Your task to perform on an android device: toggle notification dots Image 0: 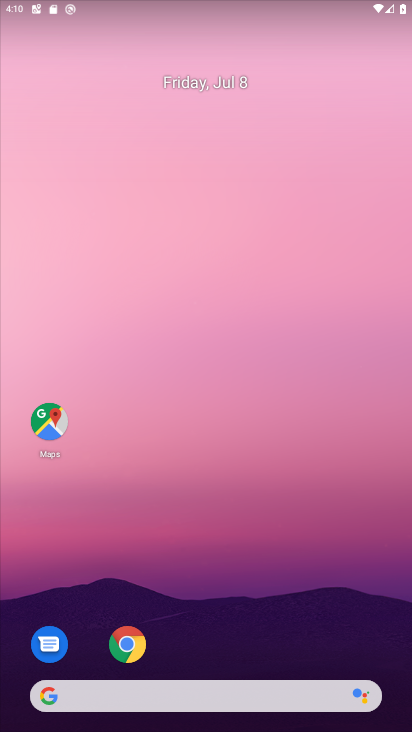
Step 0: drag from (376, 639) to (328, 33)
Your task to perform on an android device: toggle notification dots Image 1: 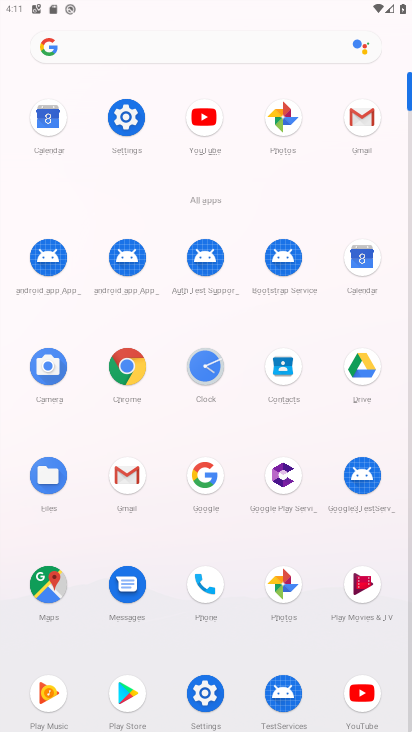
Step 1: click (204, 696)
Your task to perform on an android device: toggle notification dots Image 2: 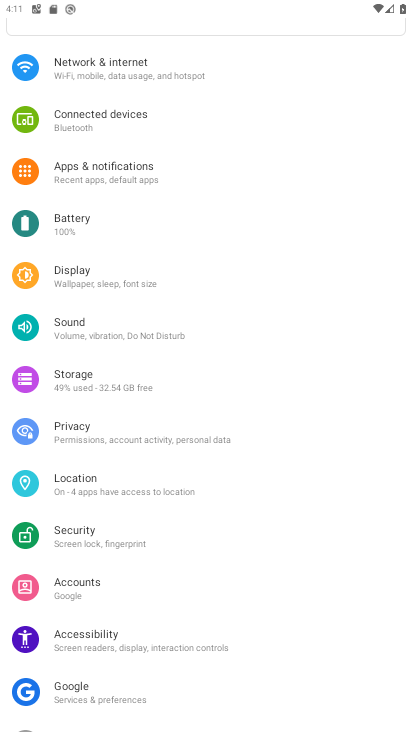
Step 2: click (90, 170)
Your task to perform on an android device: toggle notification dots Image 3: 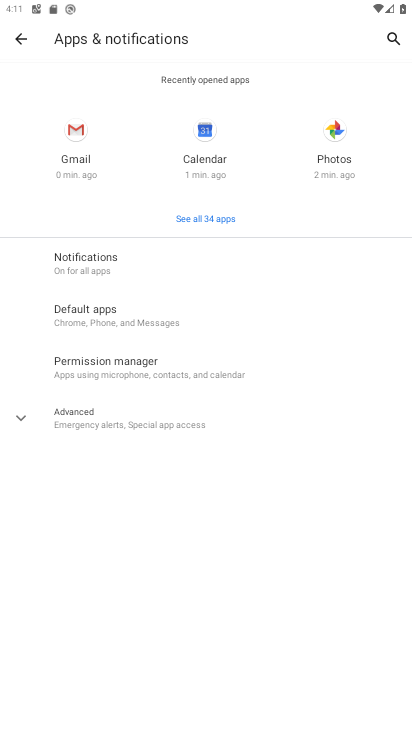
Step 3: click (73, 263)
Your task to perform on an android device: toggle notification dots Image 4: 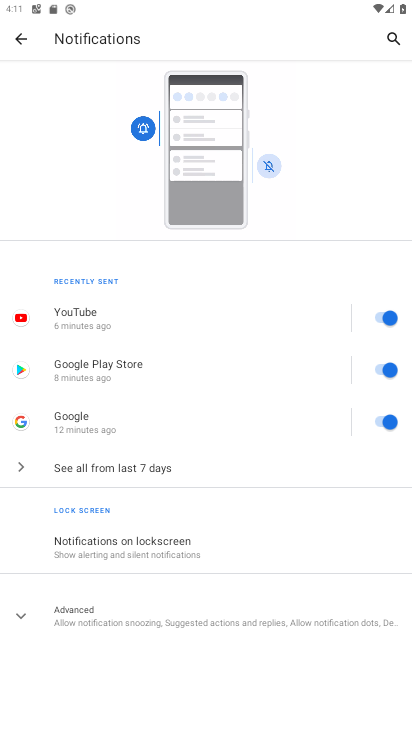
Step 4: click (99, 610)
Your task to perform on an android device: toggle notification dots Image 5: 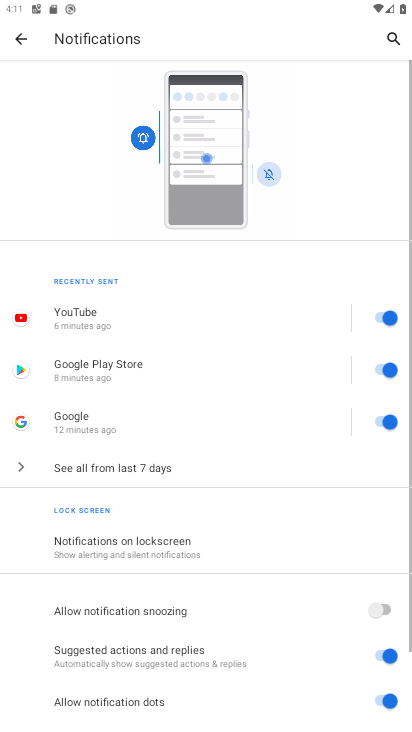
Step 5: drag from (335, 627) to (312, 323)
Your task to perform on an android device: toggle notification dots Image 6: 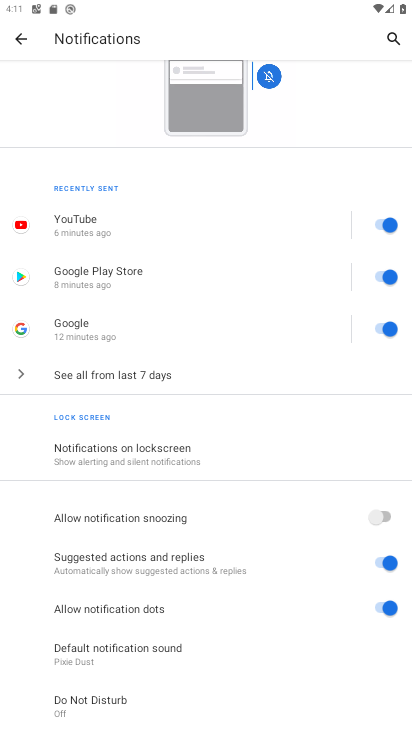
Step 6: click (377, 605)
Your task to perform on an android device: toggle notification dots Image 7: 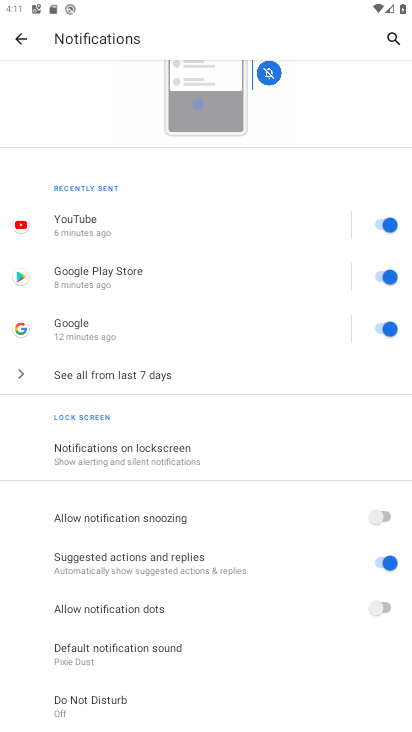
Step 7: task complete